Your task to perform on an android device: toggle javascript in the chrome app Image 0: 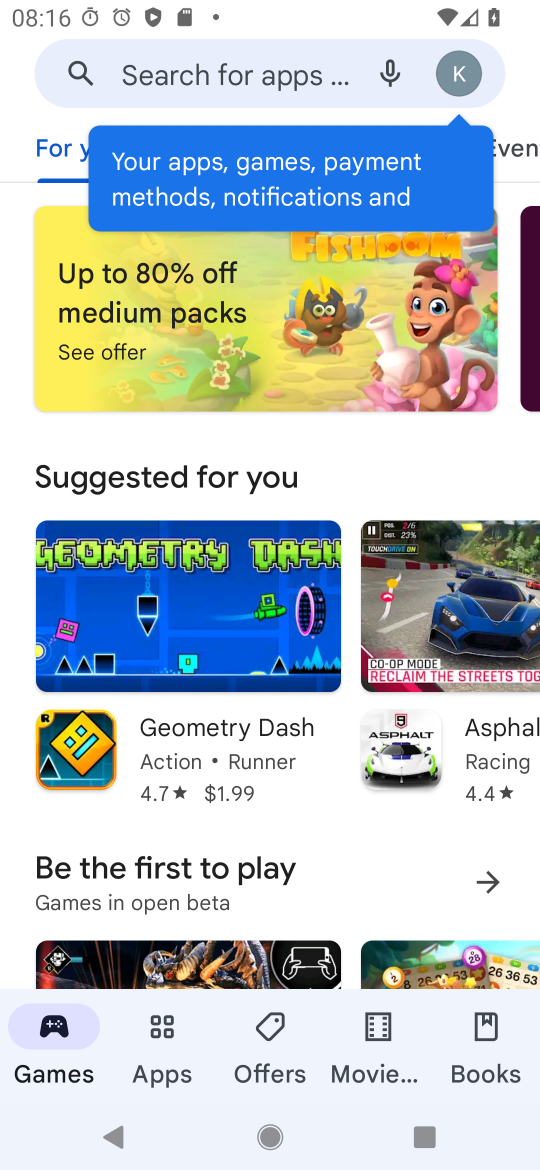
Step 0: press home button
Your task to perform on an android device: toggle javascript in the chrome app Image 1: 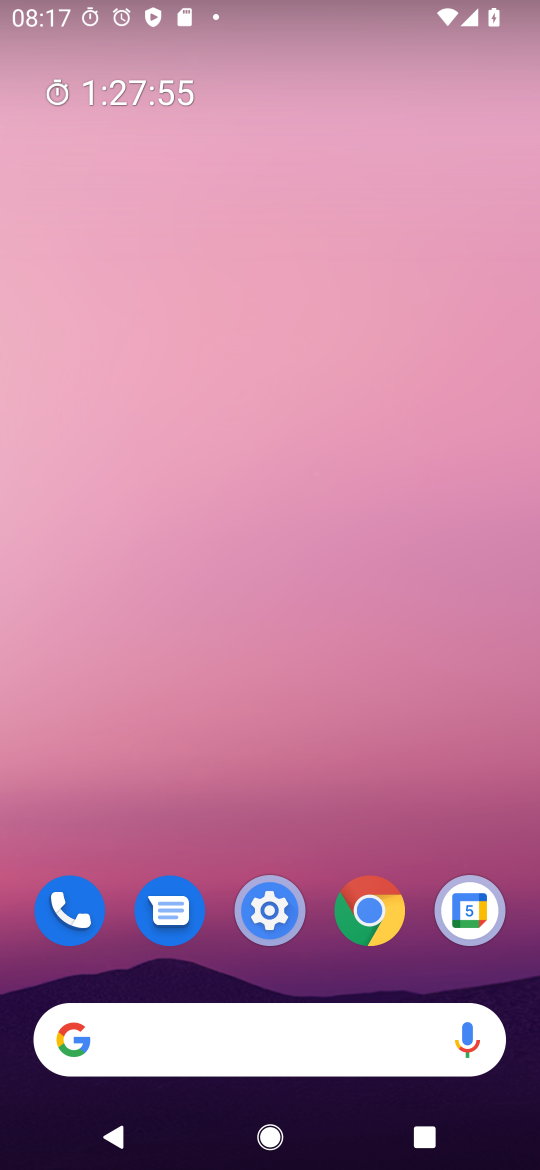
Step 1: drag from (194, 1034) to (179, 106)
Your task to perform on an android device: toggle javascript in the chrome app Image 2: 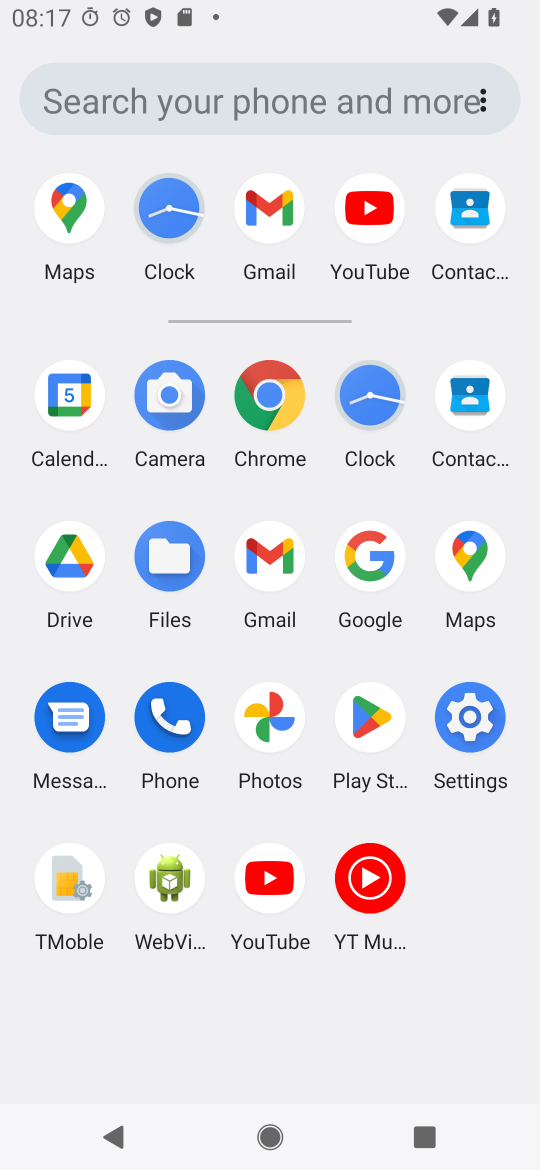
Step 2: click (273, 383)
Your task to perform on an android device: toggle javascript in the chrome app Image 3: 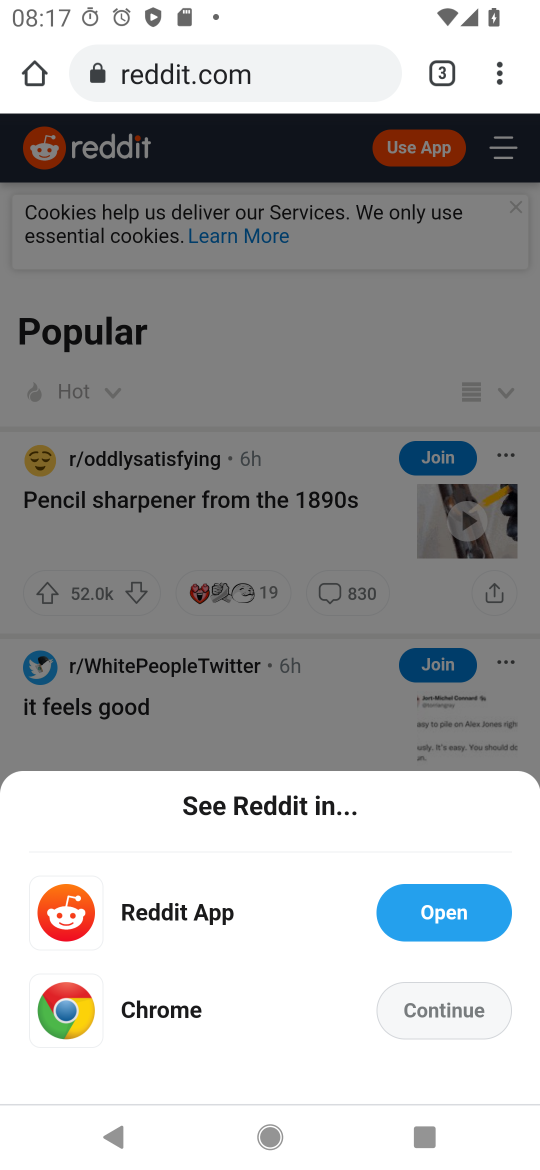
Step 3: click (494, 69)
Your task to perform on an android device: toggle javascript in the chrome app Image 4: 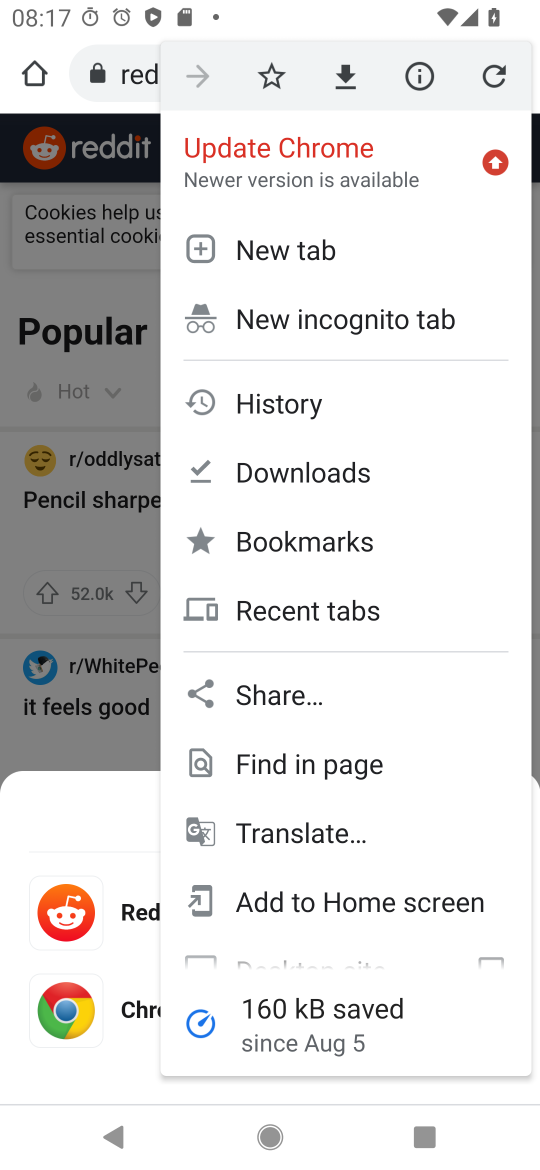
Step 4: drag from (389, 842) to (391, 280)
Your task to perform on an android device: toggle javascript in the chrome app Image 5: 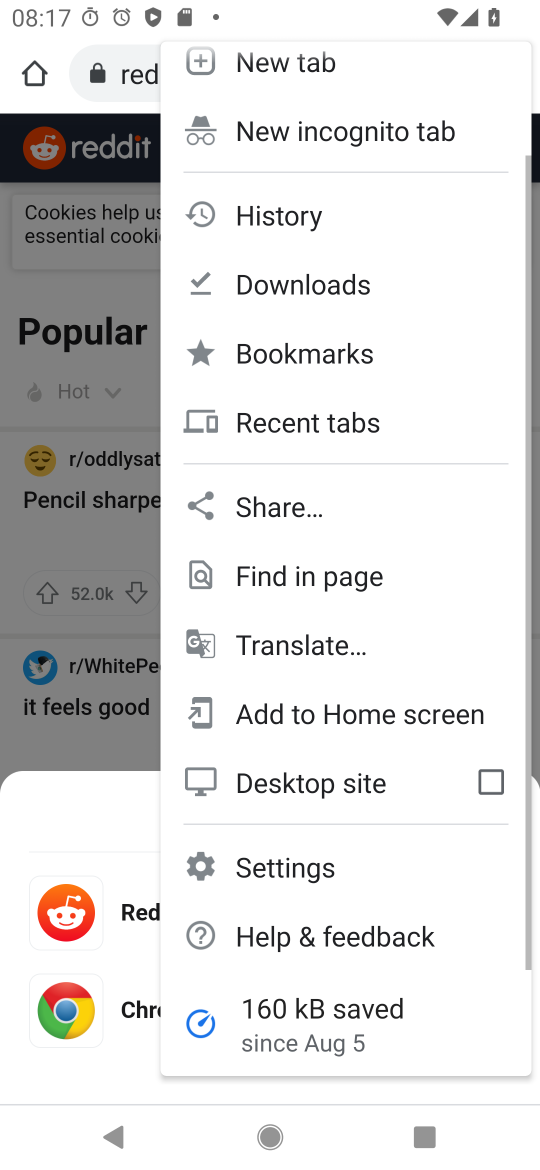
Step 5: click (305, 864)
Your task to perform on an android device: toggle javascript in the chrome app Image 6: 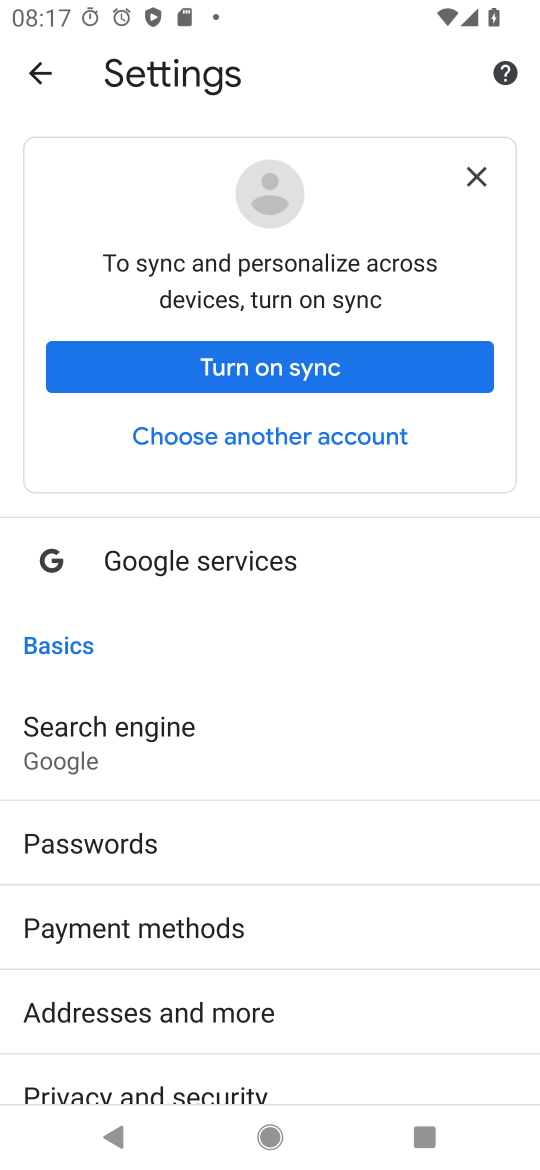
Step 6: drag from (488, 986) to (440, 101)
Your task to perform on an android device: toggle javascript in the chrome app Image 7: 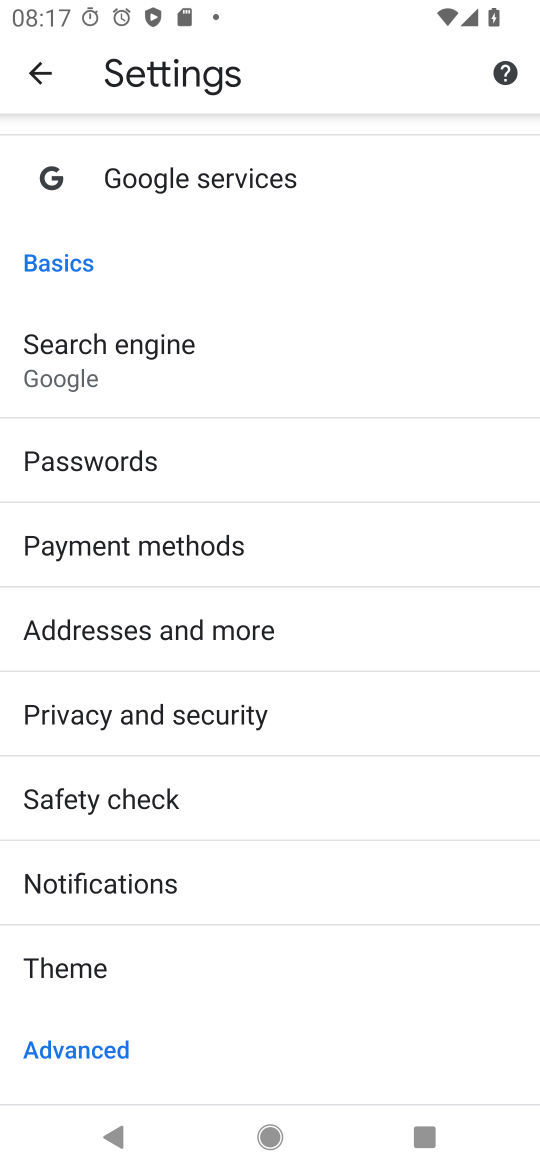
Step 7: drag from (317, 966) to (331, 304)
Your task to perform on an android device: toggle javascript in the chrome app Image 8: 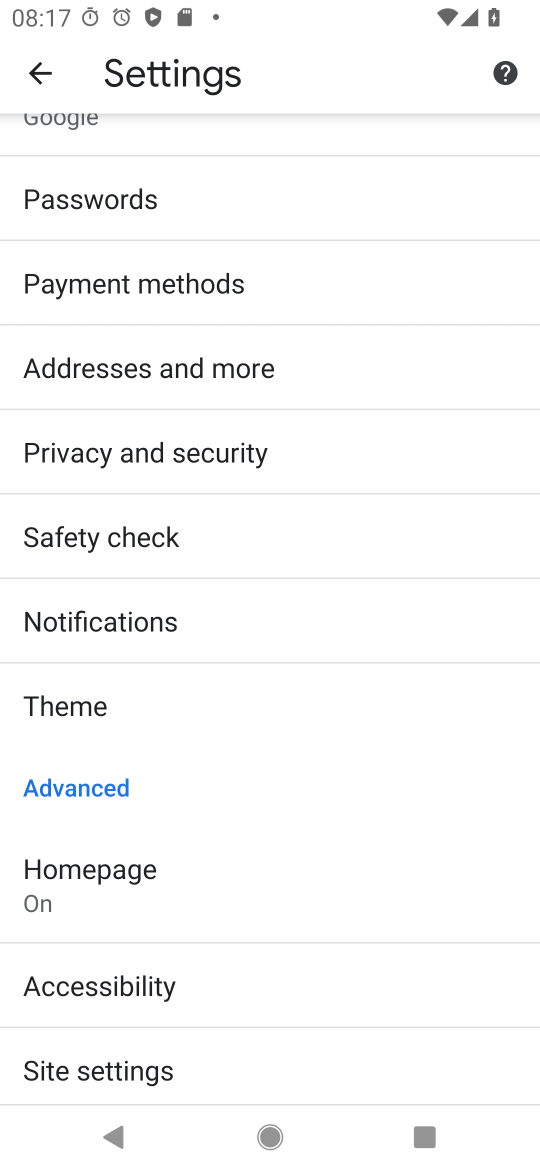
Step 8: click (195, 1063)
Your task to perform on an android device: toggle javascript in the chrome app Image 9: 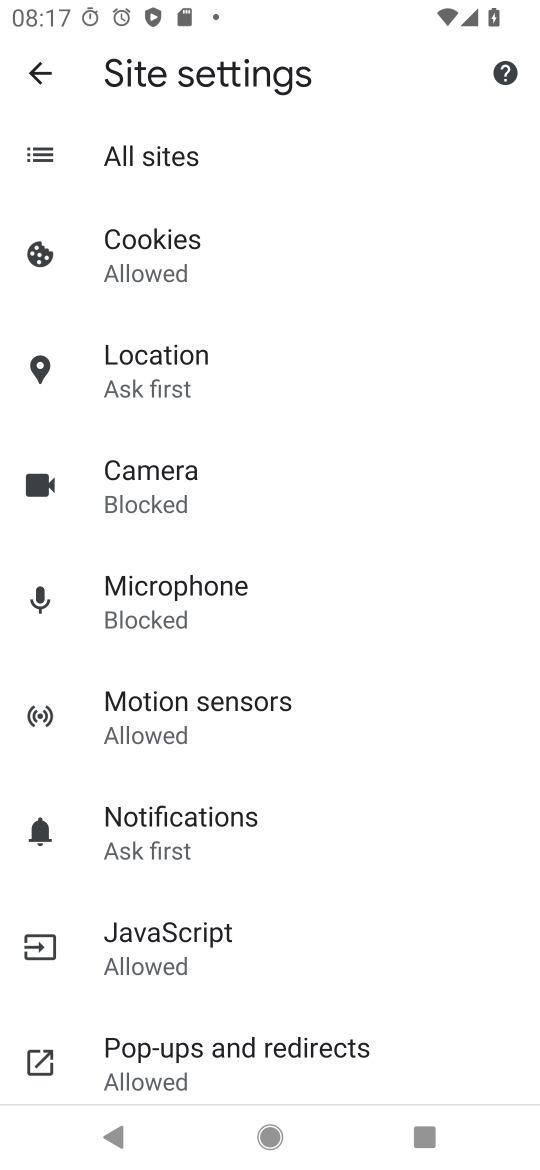
Step 9: click (192, 943)
Your task to perform on an android device: toggle javascript in the chrome app Image 10: 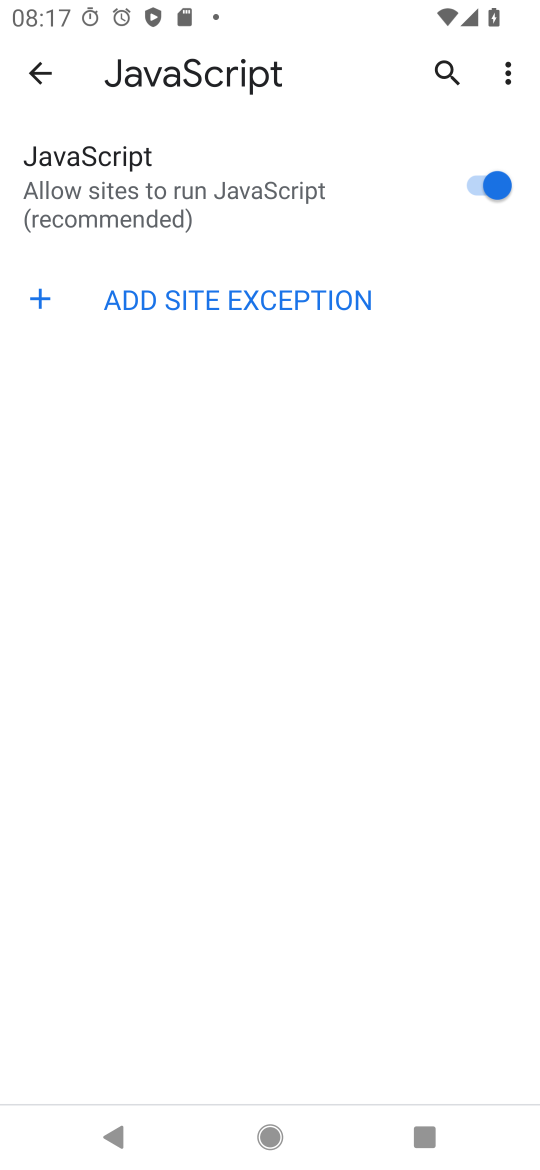
Step 10: click (478, 186)
Your task to perform on an android device: toggle javascript in the chrome app Image 11: 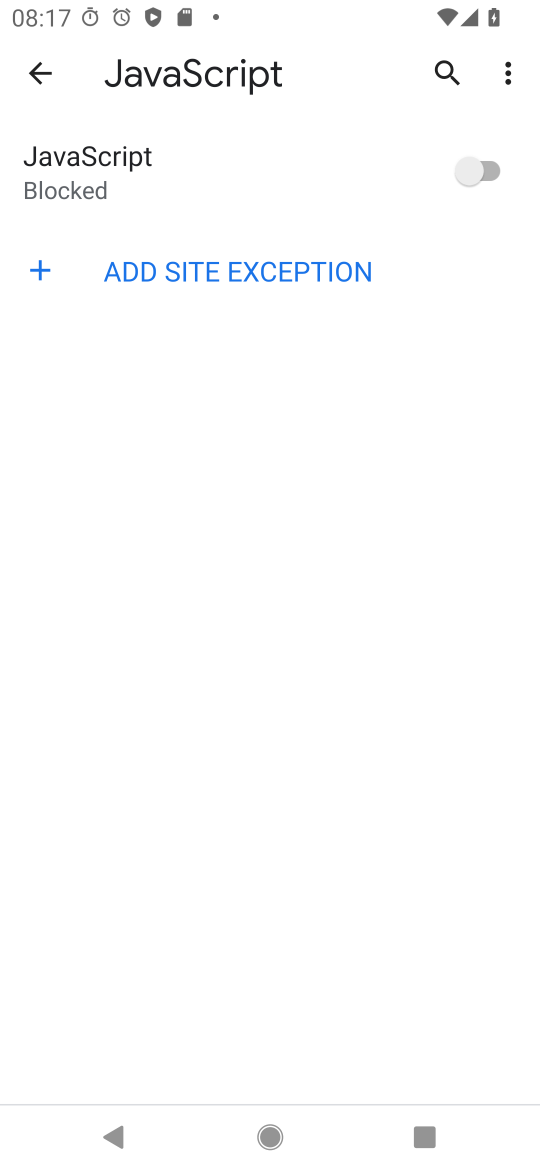
Step 11: task complete